Your task to perform on an android device: clear history in the chrome app Image 0: 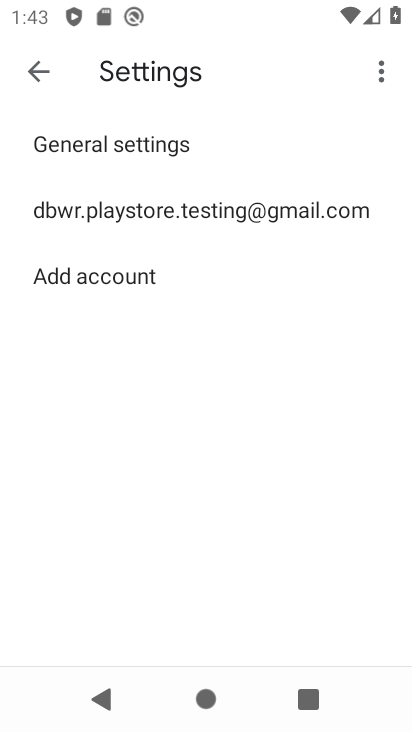
Step 0: press home button
Your task to perform on an android device: clear history in the chrome app Image 1: 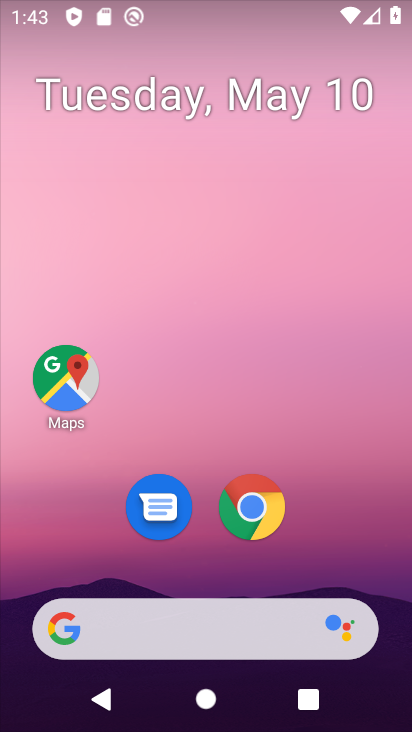
Step 1: click (262, 512)
Your task to perform on an android device: clear history in the chrome app Image 2: 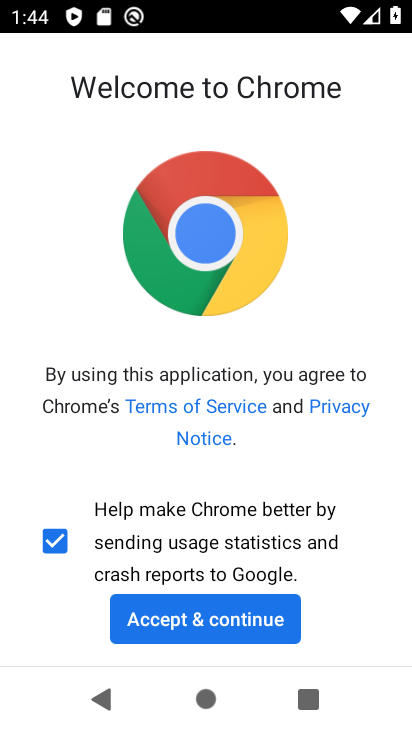
Step 2: click (203, 620)
Your task to perform on an android device: clear history in the chrome app Image 3: 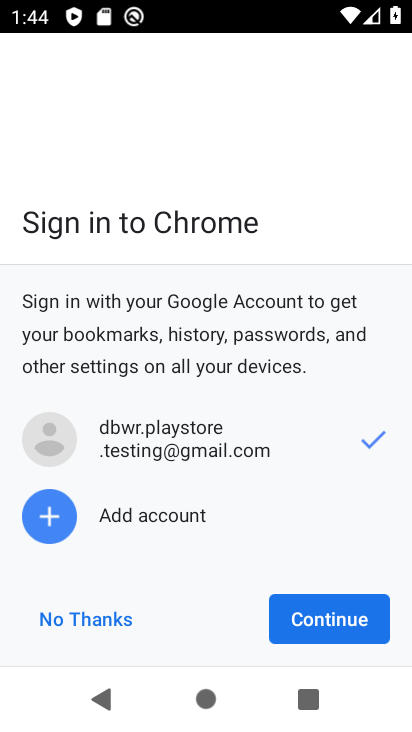
Step 3: click (203, 619)
Your task to perform on an android device: clear history in the chrome app Image 4: 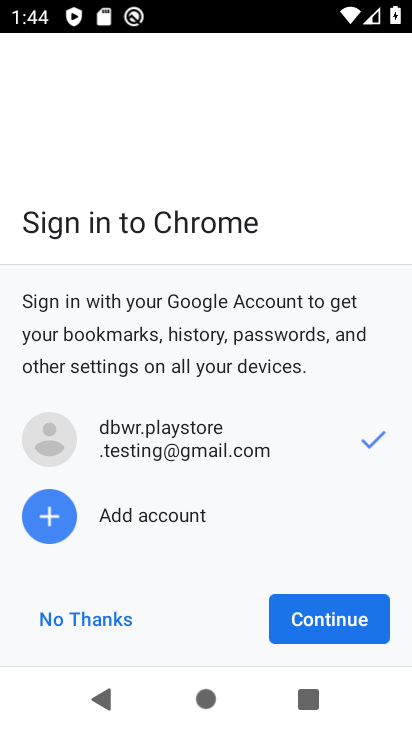
Step 4: click (280, 617)
Your task to perform on an android device: clear history in the chrome app Image 5: 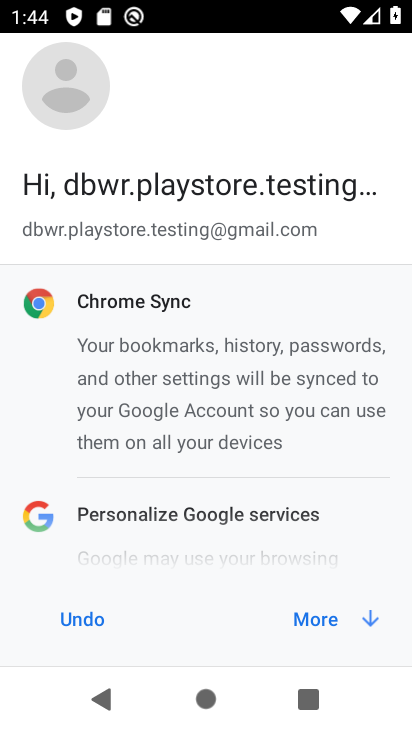
Step 5: click (316, 613)
Your task to perform on an android device: clear history in the chrome app Image 6: 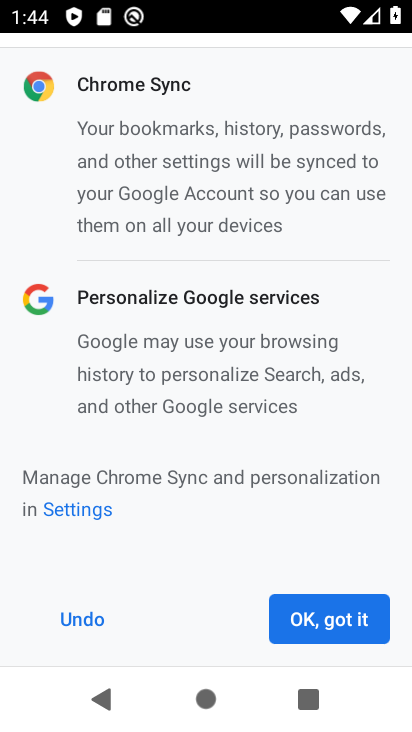
Step 6: click (316, 613)
Your task to perform on an android device: clear history in the chrome app Image 7: 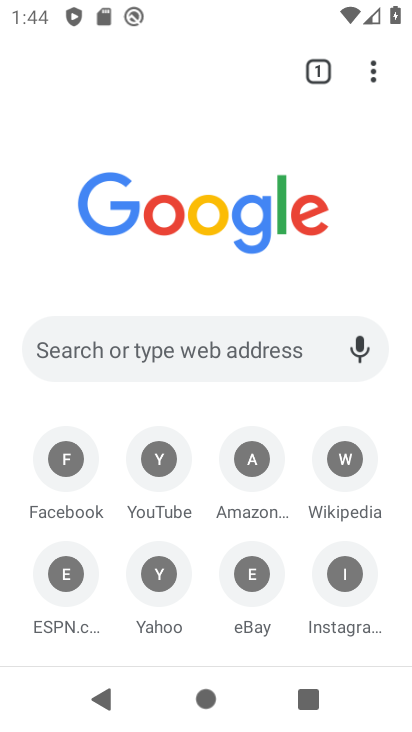
Step 7: task complete